Your task to perform on an android device: add a contact Image 0: 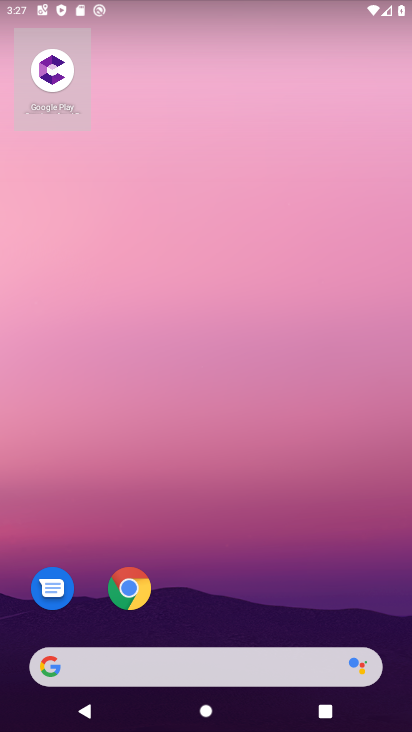
Step 0: drag from (287, 556) to (302, 5)
Your task to perform on an android device: add a contact Image 1: 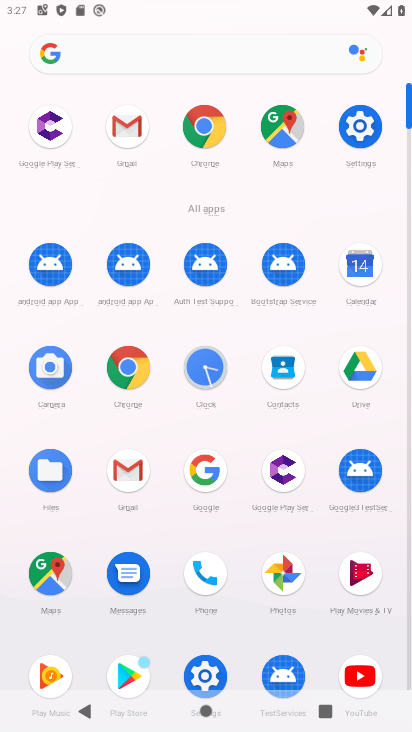
Step 1: click (190, 571)
Your task to perform on an android device: add a contact Image 2: 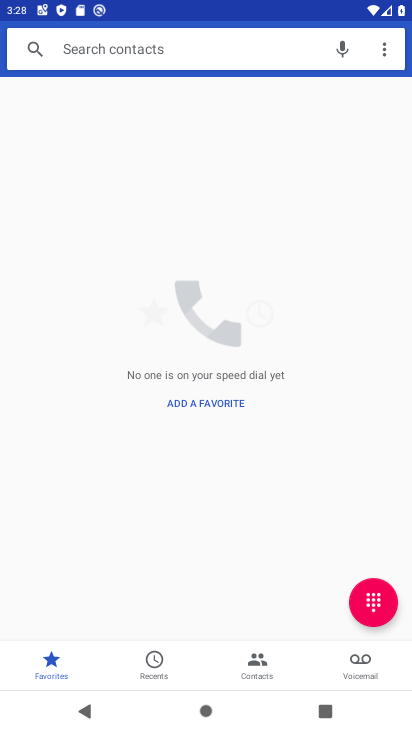
Step 2: click (249, 662)
Your task to perform on an android device: add a contact Image 3: 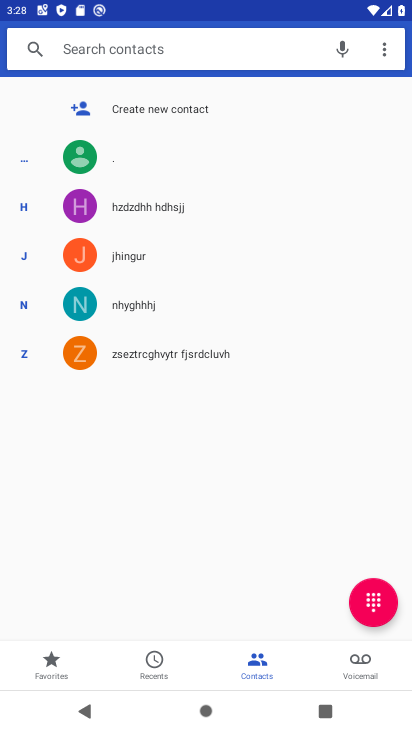
Step 3: click (112, 110)
Your task to perform on an android device: add a contact Image 4: 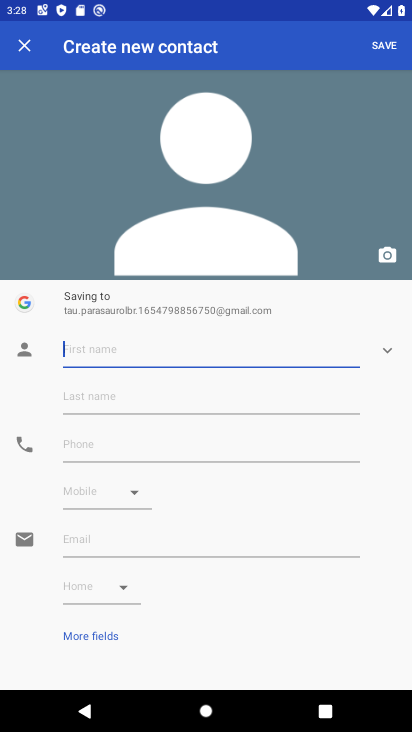
Step 4: type "tttt"
Your task to perform on an android device: add a contact Image 5: 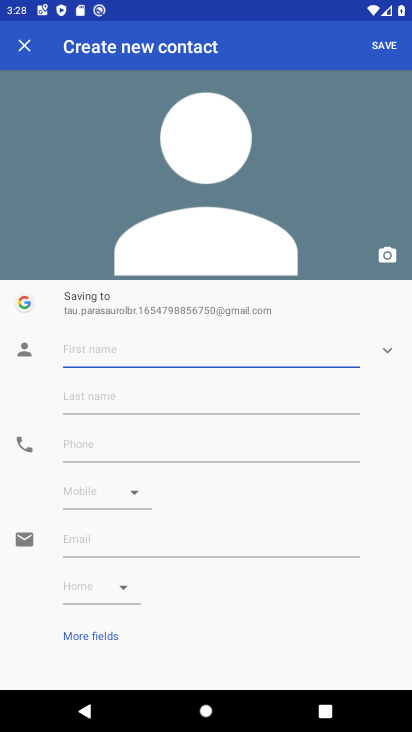
Step 5: click (188, 444)
Your task to perform on an android device: add a contact Image 6: 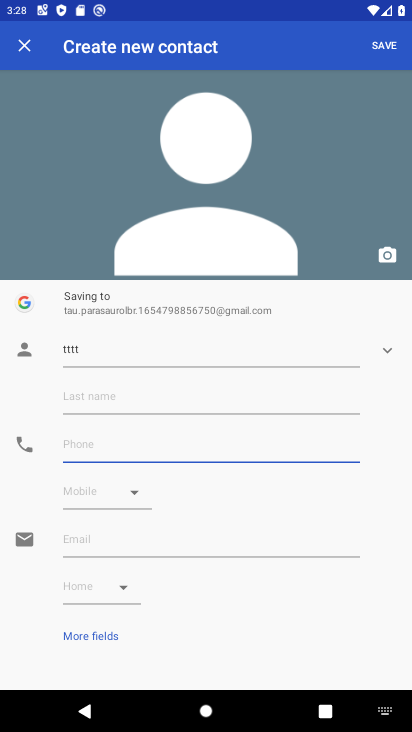
Step 6: type "56776555"
Your task to perform on an android device: add a contact Image 7: 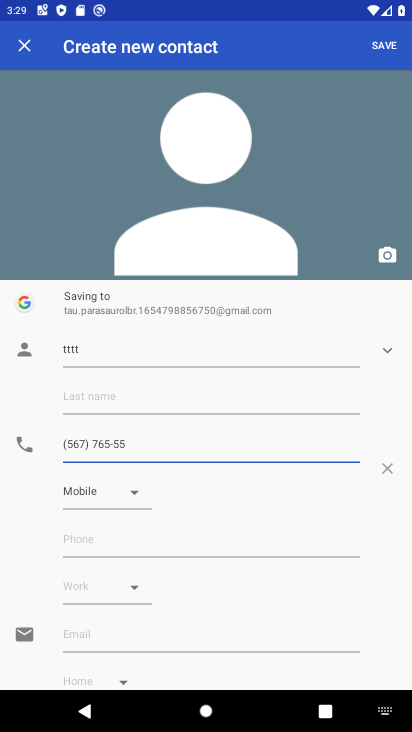
Step 7: click (385, 44)
Your task to perform on an android device: add a contact Image 8: 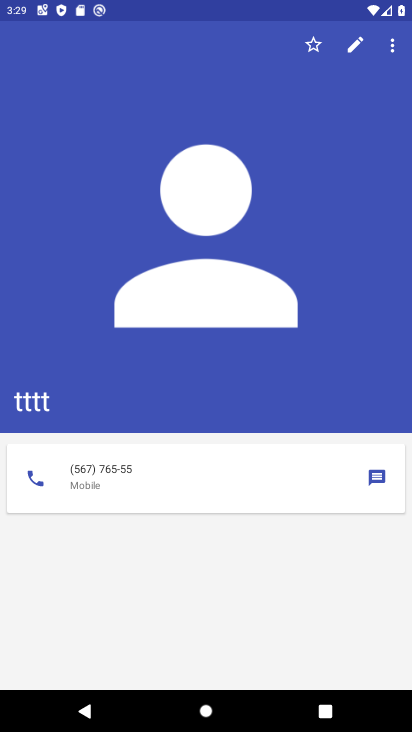
Step 8: task complete